Your task to perform on an android device: Search for pizza restaurants on Maps Image 0: 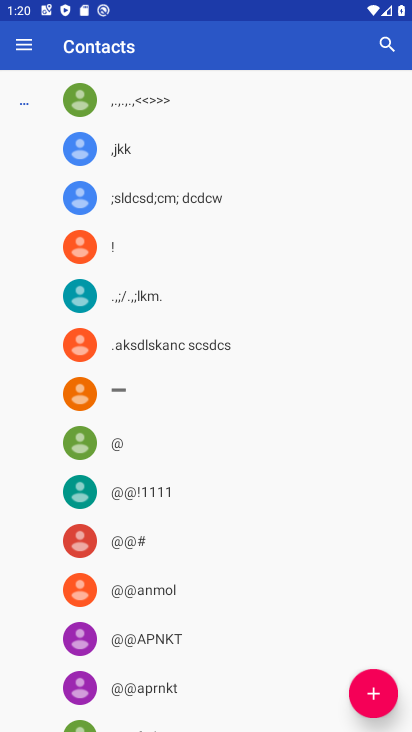
Step 0: press home button
Your task to perform on an android device: Search for pizza restaurants on Maps Image 1: 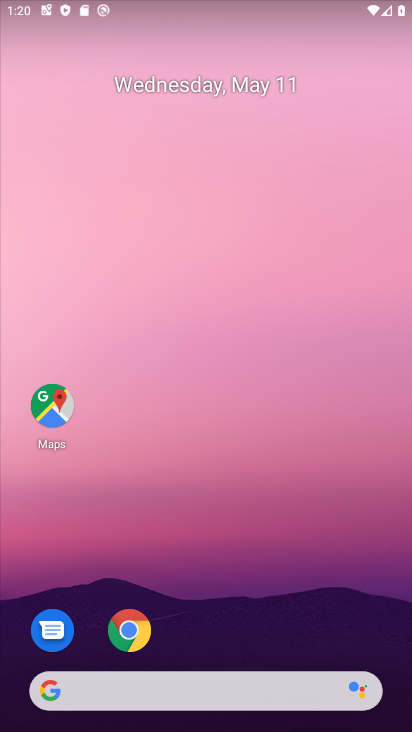
Step 1: drag from (343, 581) to (341, 36)
Your task to perform on an android device: Search for pizza restaurants on Maps Image 2: 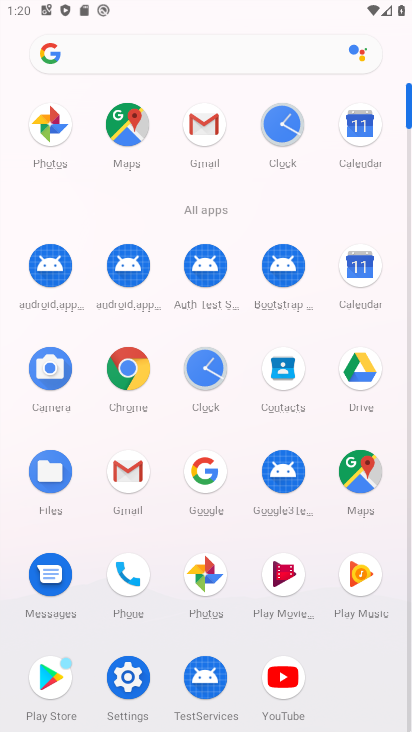
Step 2: click (357, 478)
Your task to perform on an android device: Search for pizza restaurants on Maps Image 3: 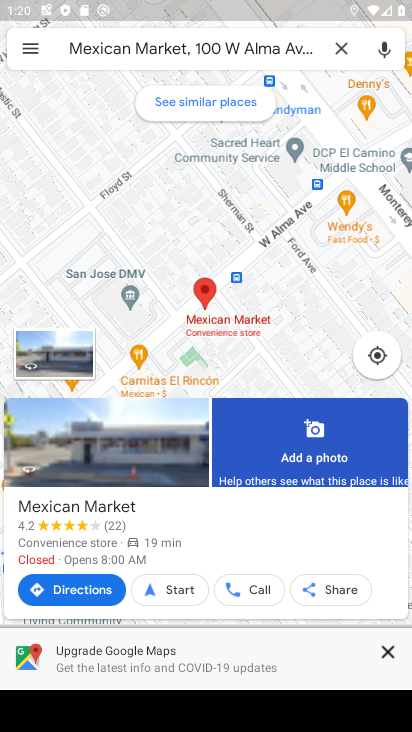
Step 3: click (343, 42)
Your task to perform on an android device: Search for pizza restaurants on Maps Image 4: 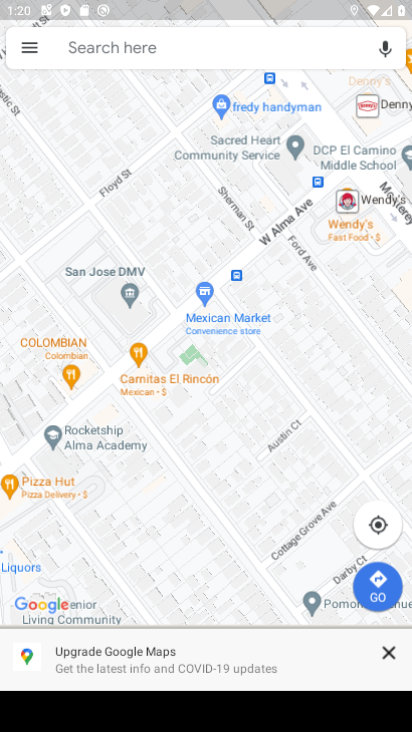
Step 4: click (233, 60)
Your task to perform on an android device: Search for pizza restaurants on Maps Image 5: 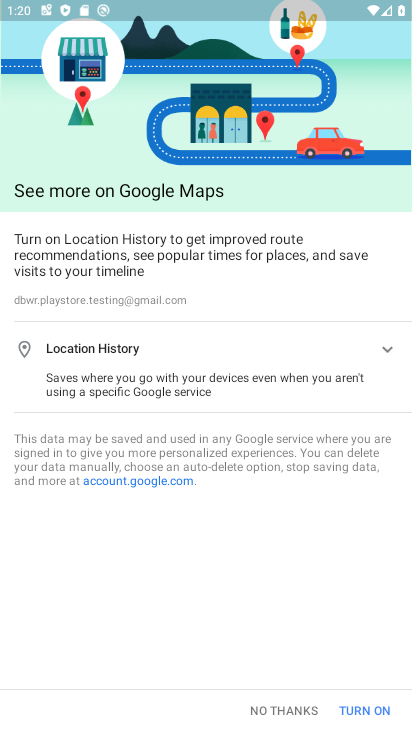
Step 5: click (297, 713)
Your task to perform on an android device: Search for pizza restaurants on Maps Image 6: 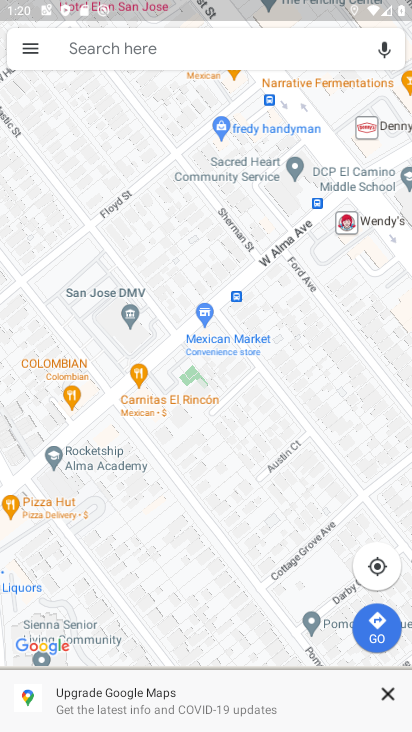
Step 6: click (165, 54)
Your task to perform on an android device: Search for pizza restaurants on Maps Image 7: 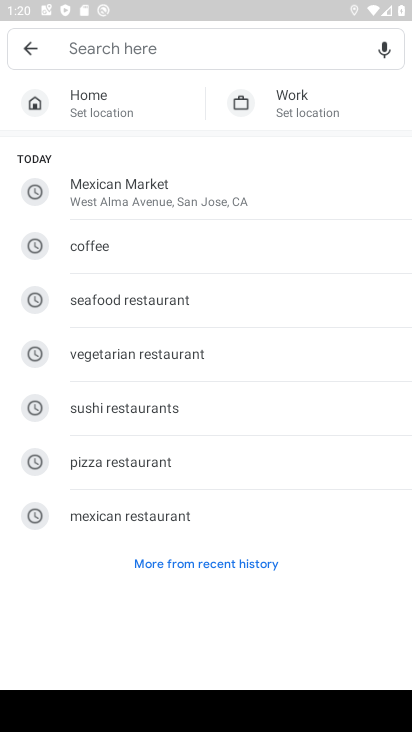
Step 7: click (126, 457)
Your task to perform on an android device: Search for pizza restaurants on Maps Image 8: 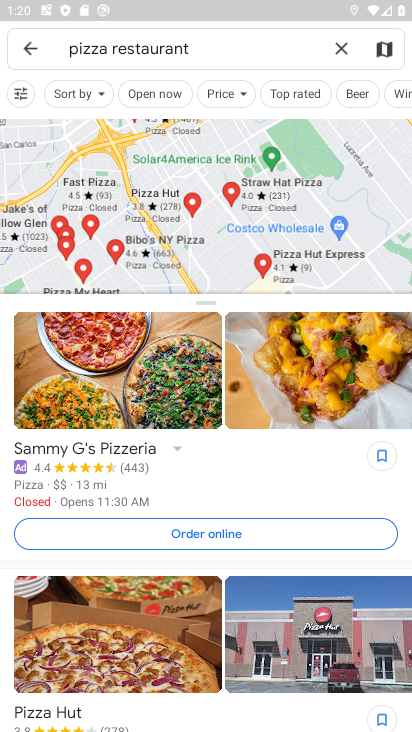
Step 8: task complete